Your task to perform on an android device: Go to wifi settings Image 0: 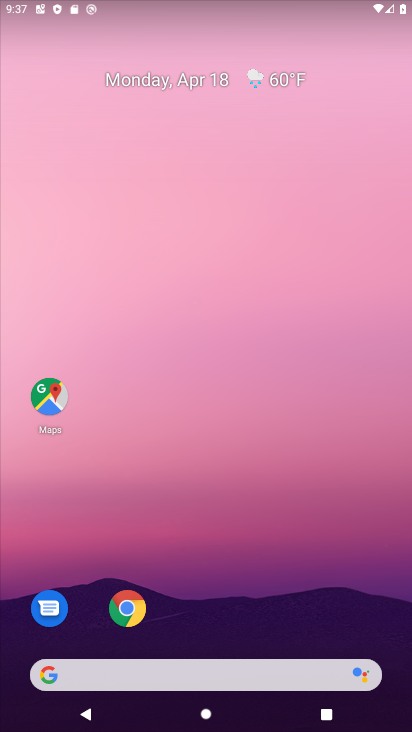
Step 0: drag from (185, 643) to (232, 145)
Your task to perform on an android device: Go to wifi settings Image 1: 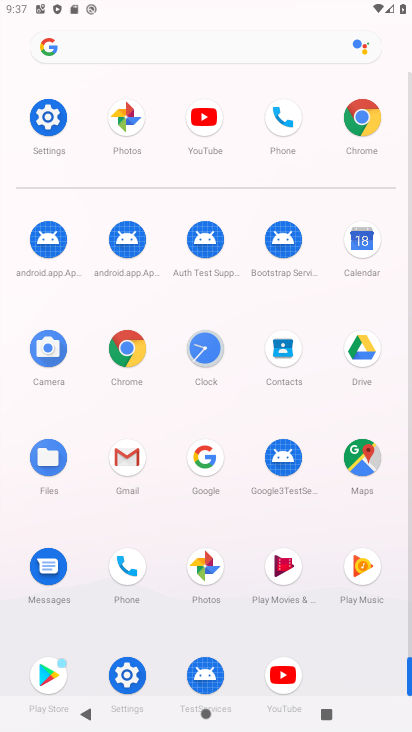
Step 1: click (47, 119)
Your task to perform on an android device: Go to wifi settings Image 2: 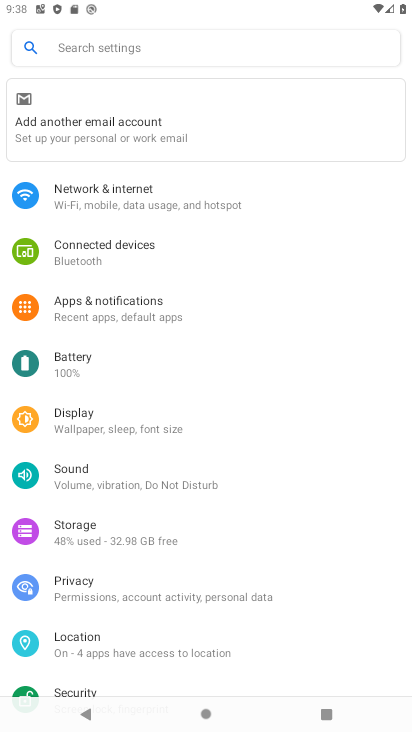
Step 2: click (162, 201)
Your task to perform on an android device: Go to wifi settings Image 3: 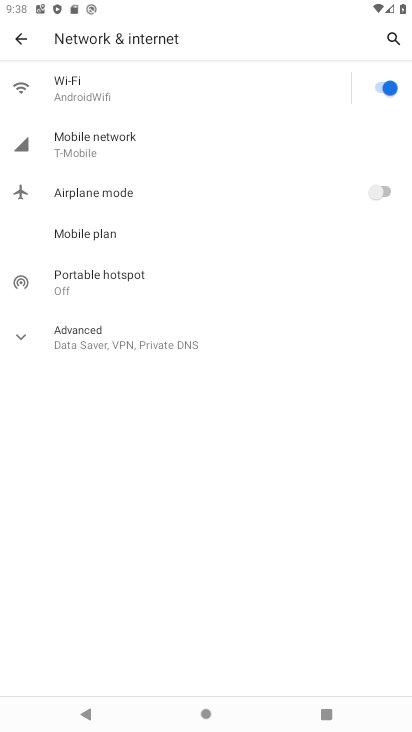
Step 3: click (212, 91)
Your task to perform on an android device: Go to wifi settings Image 4: 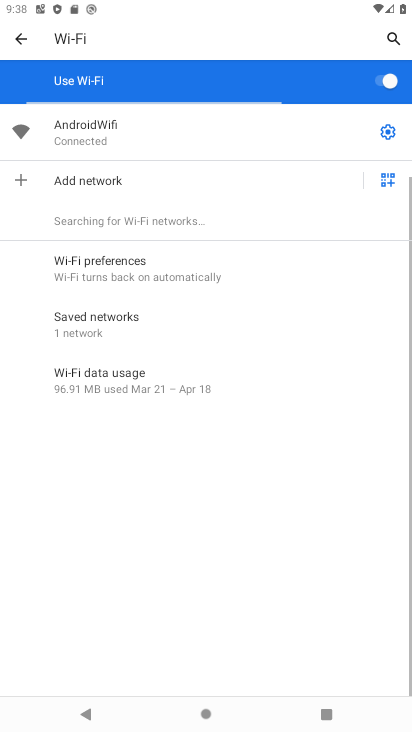
Step 4: task complete